Your task to perform on an android device: allow cookies in the chrome app Image 0: 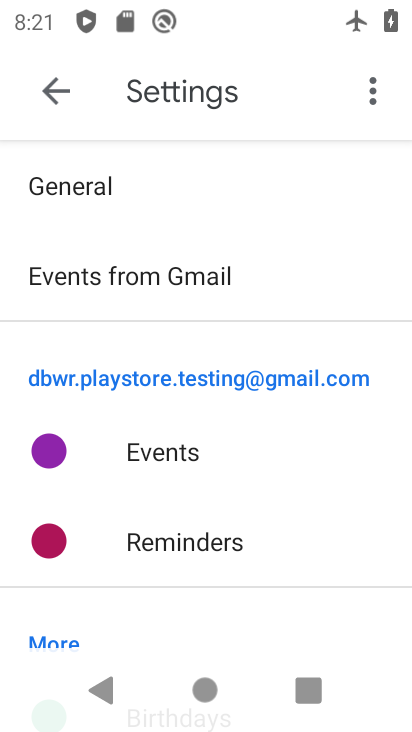
Step 0: press home button
Your task to perform on an android device: allow cookies in the chrome app Image 1: 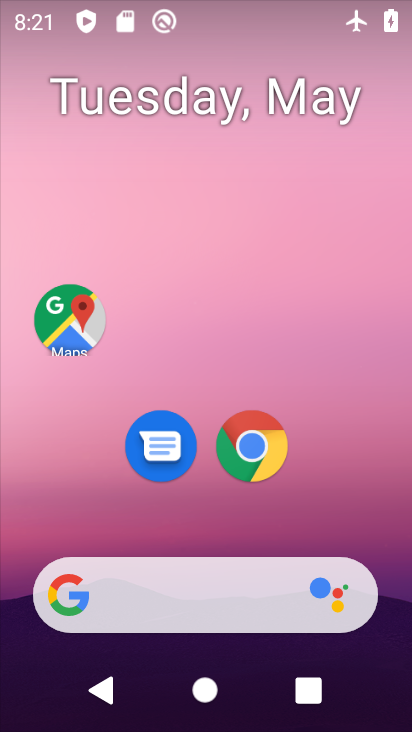
Step 1: drag from (390, 549) to (380, 272)
Your task to perform on an android device: allow cookies in the chrome app Image 2: 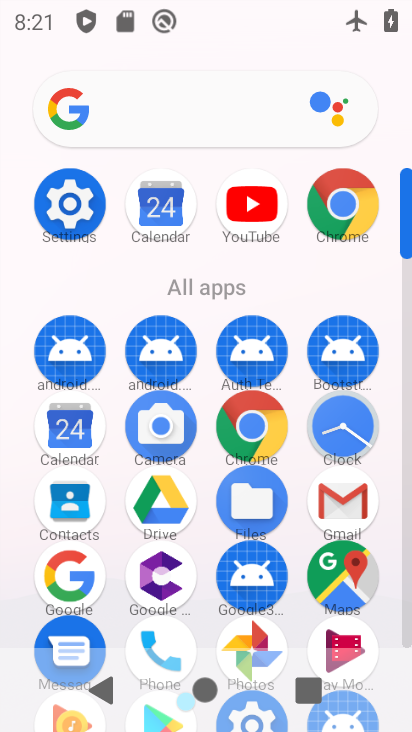
Step 2: click (257, 443)
Your task to perform on an android device: allow cookies in the chrome app Image 3: 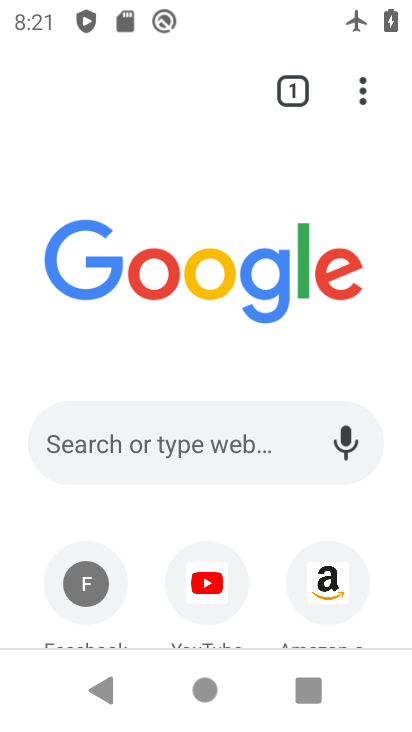
Step 3: click (359, 101)
Your task to perform on an android device: allow cookies in the chrome app Image 4: 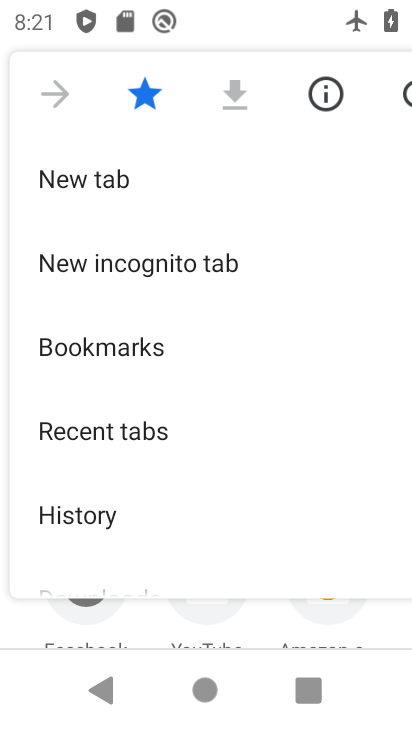
Step 4: drag from (320, 403) to (346, 325)
Your task to perform on an android device: allow cookies in the chrome app Image 5: 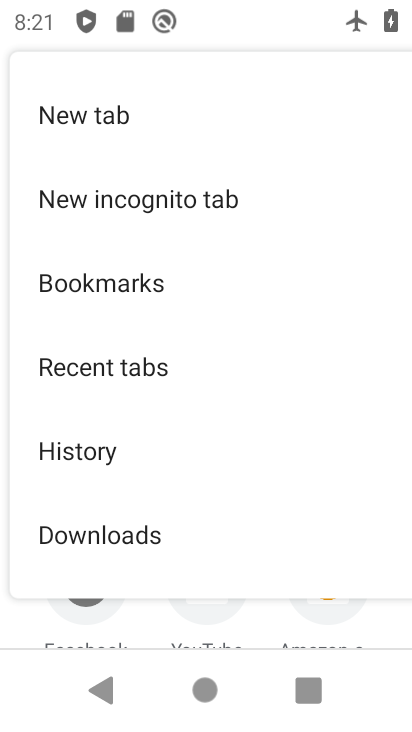
Step 5: drag from (337, 441) to (351, 356)
Your task to perform on an android device: allow cookies in the chrome app Image 6: 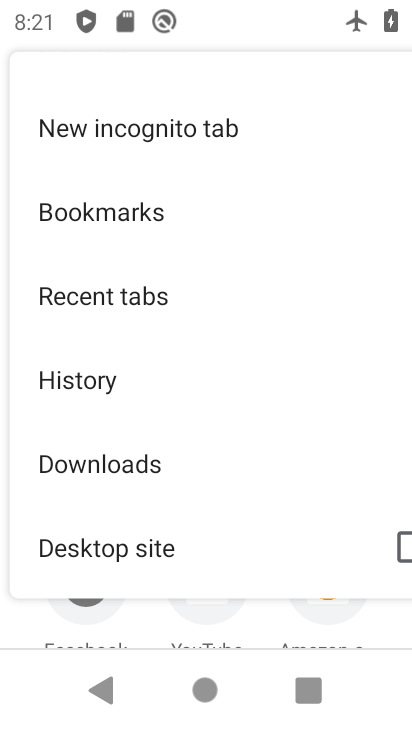
Step 6: drag from (333, 487) to (344, 394)
Your task to perform on an android device: allow cookies in the chrome app Image 7: 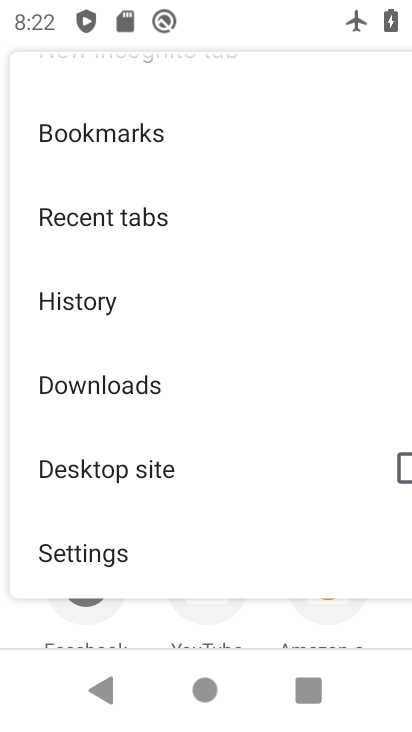
Step 7: drag from (319, 497) to (334, 416)
Your task to perform on an android device: allow cookies in the chrome app Image 8: 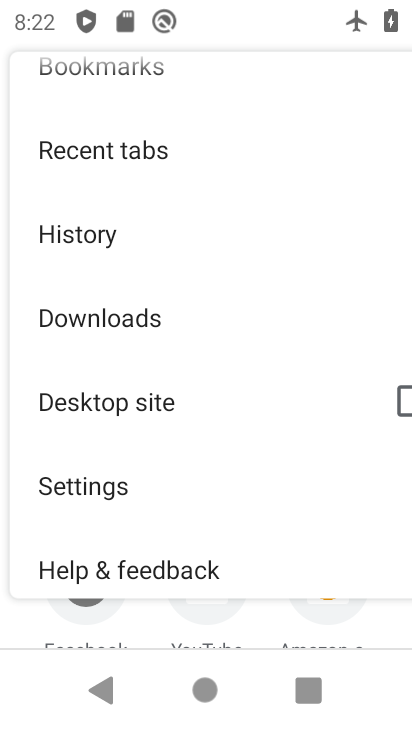
Step 8: drag from (311, 521) to (319, 435)
Your task to perform on an android device: allow cookies in the chrome app Image 9: 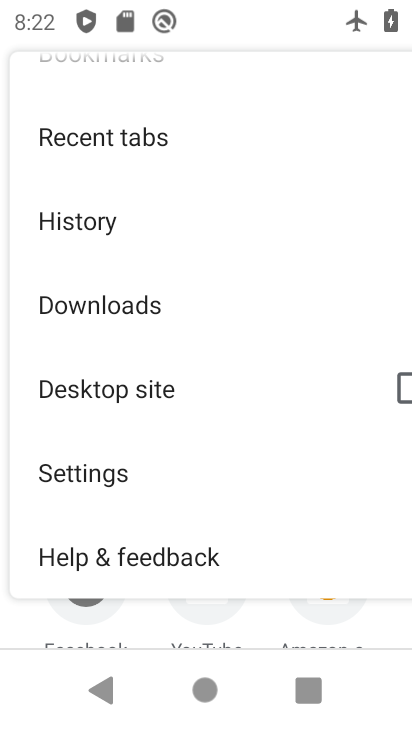
Step 9: click (240, 481)
Your task to perform on an android device: allow cookies in the chrome app Image 10: 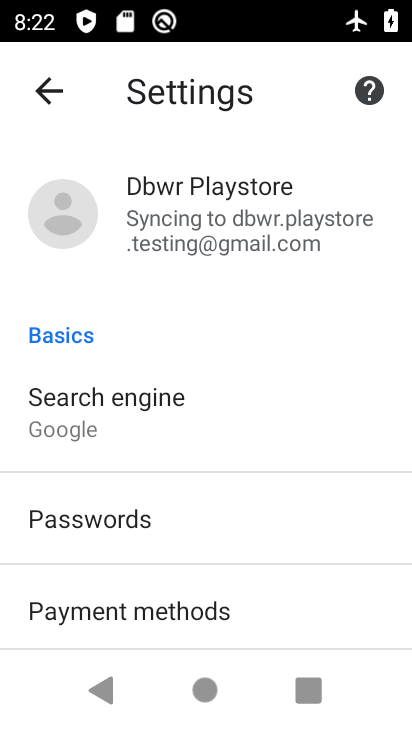
Step 10: drag from (317, 559) to (330, 495)
Your task to perform on an android device: allow cookies in the chrome app Image 11: 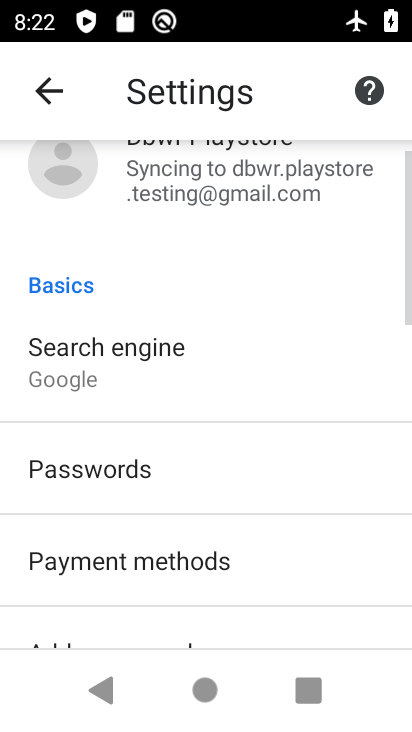
Step 11: drag from (330, 566) to (341, 475)
Your task to perform on an android device: allow cookies in the chrome app Image 12: 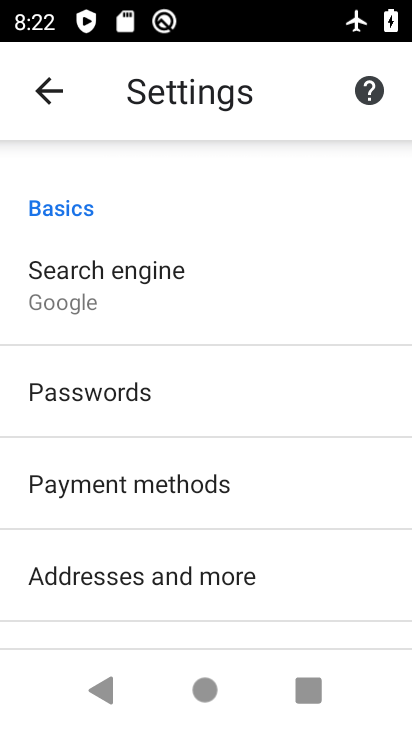
Step 12: drag from (343, 538) to (353, 448)
Your task to perform on an android device: allow cookies in the chrome app Image 13: 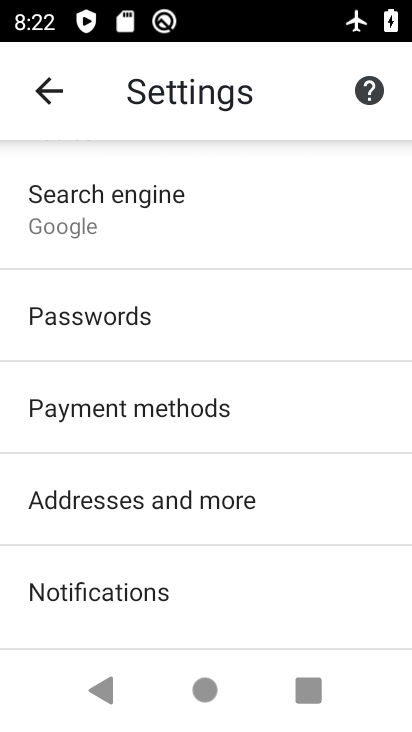
Step 13: drag from (339, 551) to (346, 434)
Your task to perform on an android device: allow cookies in the chrome app Image 14: 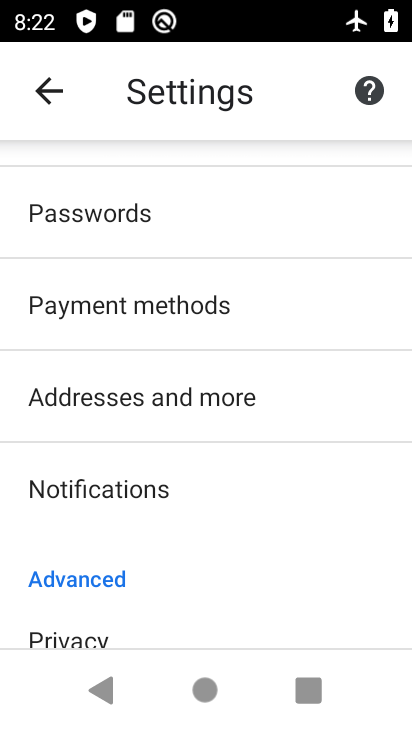
Step 14: drag from (325, 515) to (333, 439)
Your task to perform on an android device: allow cookies in the chrome app Image 15: 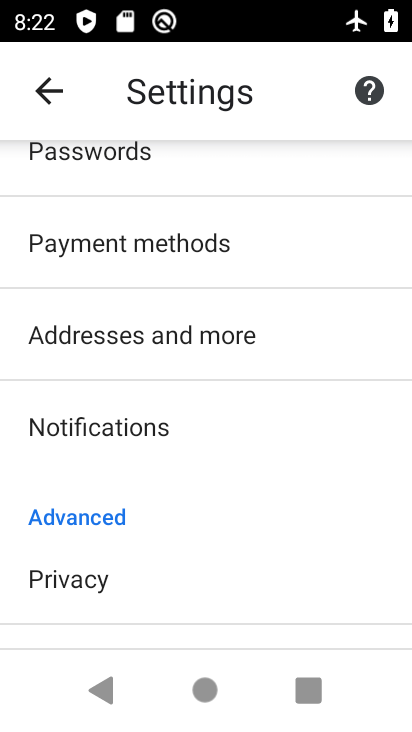
Step 15: drag from (318, 522) to (326, 431)
Your task to perform on an android device: allow cookies in the chrome app Image 16: 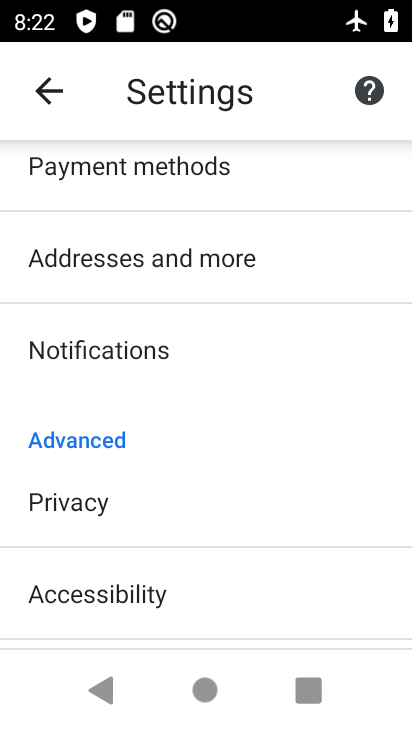
Step 16: drag from (326, 540) to (334, 465)
Your task to perform on an android device: allow cookies in the chrome app Image 17: 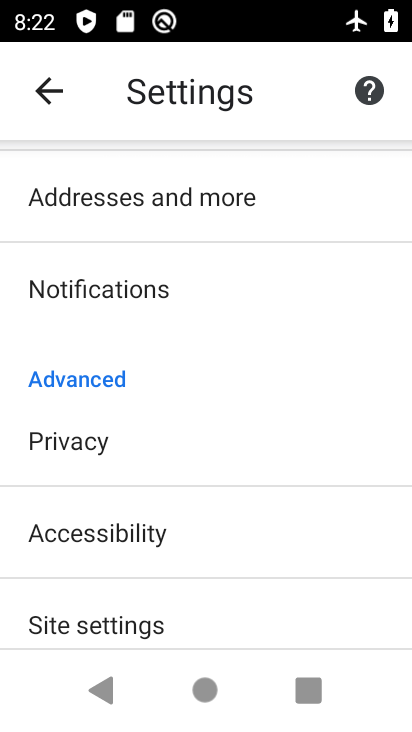
Step 17: drag from (327, 541) to (339, 467)
Your task to perform on an android device: allow cookies in the chrome app Image 18: 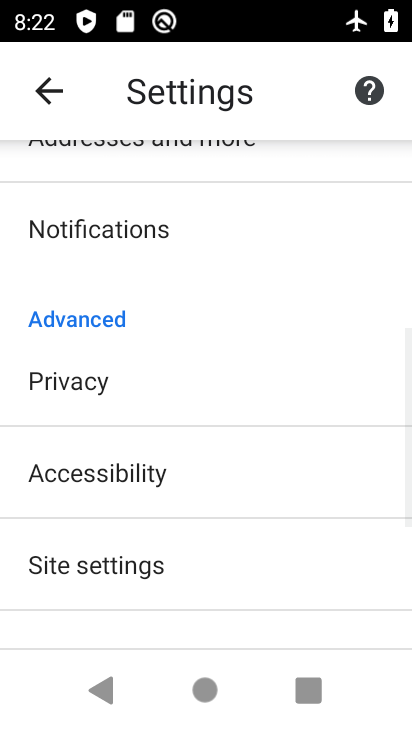
Step 18: drag from (326, 559) to (339, 485)
Your task to perform on an android device: allow cookies in the chrome app Image 19: 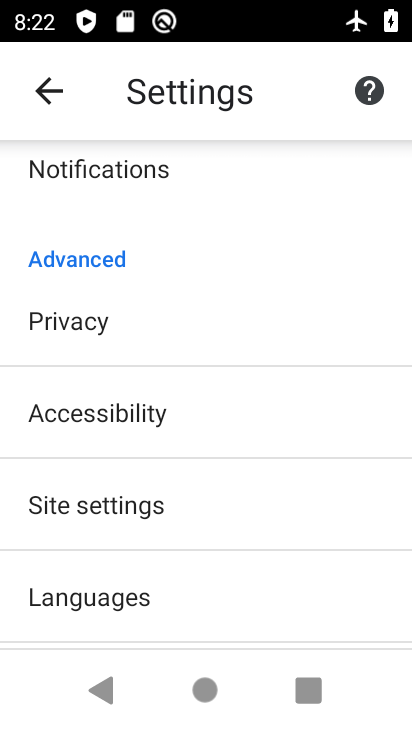
Step 19: drag from (320, 578) to (334, 485)
Your task to perform on an android device: allow cookies in the chrome app Image 20: 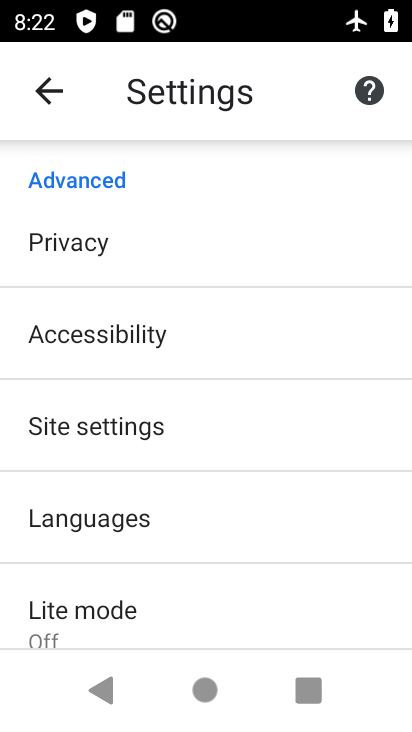
Step 20: click (251, 449)
Your task to perform on an android device: allow cookies in the chrome app Image 21: 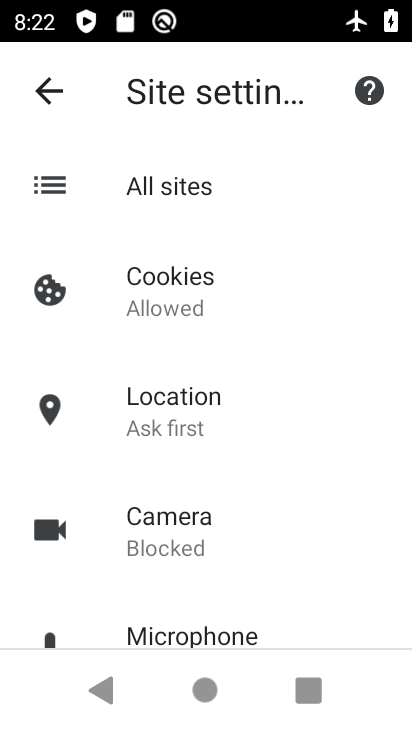
Step 21: click (264, 309)
Your task to perform on an android device: allow cookies in the chrome app Image 22: 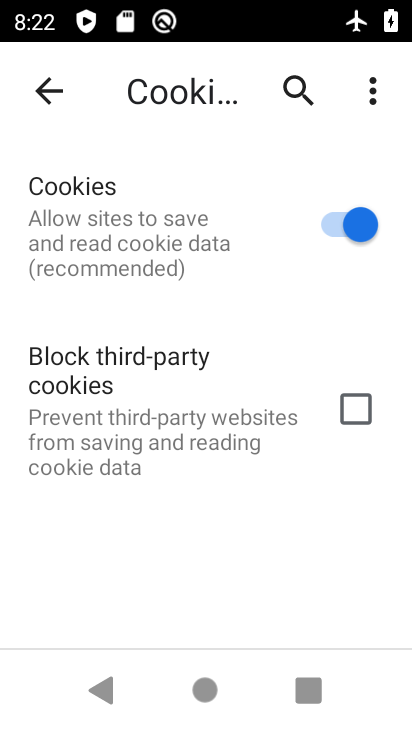
Step 22: task complete